Your task to perform on an android device: Open Google Chrome and open the bookmarks view Image 0: 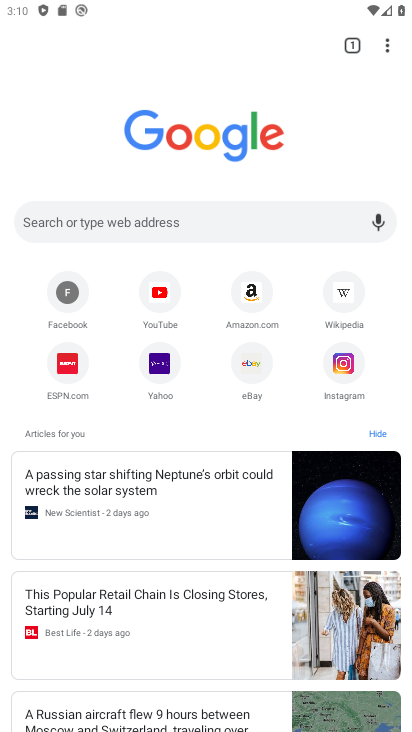
Step 0: press home button
Your task to perform on an android device: Open Google Chrome and open the bookmarks view Image 1: 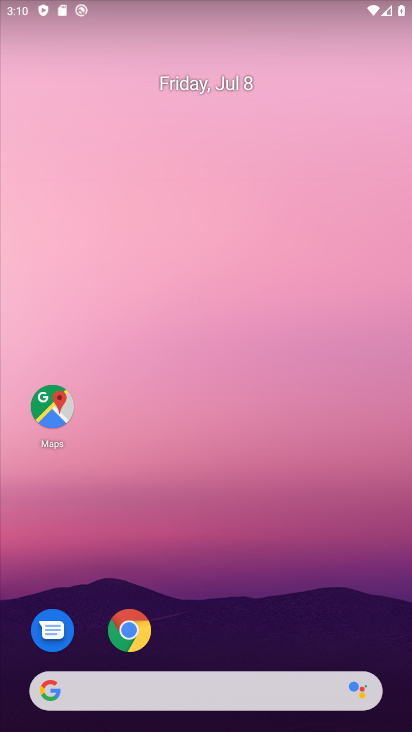
Step 1: click (130, 629)
Your task to perform on an android device: Open Google Chrome and open the bookmarks view Image 2: 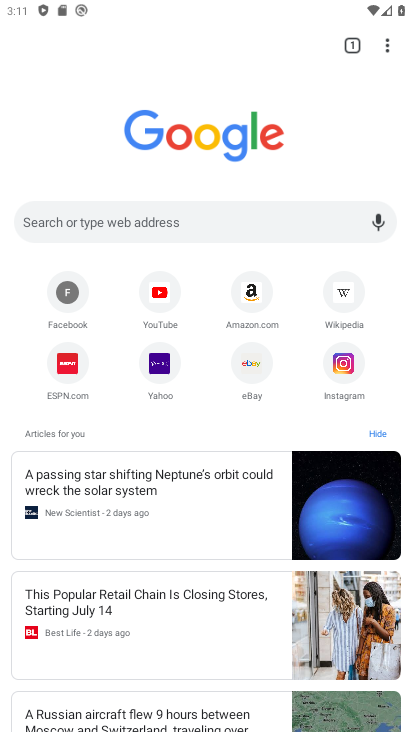
Step 2: click (386, 47)
Your task to perform on an android device: Open Google Chrome and open the bookmarks view Image 3: 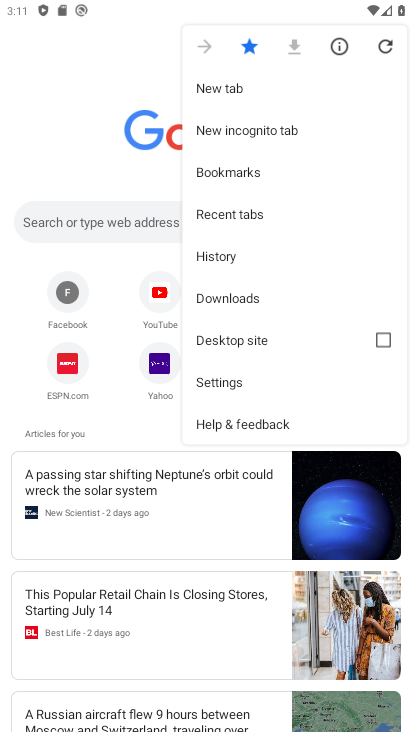
Step 3: click (262, 174)
Your task to perform on an android device: Open Google Chrome and open the bookmarks view Image 4: 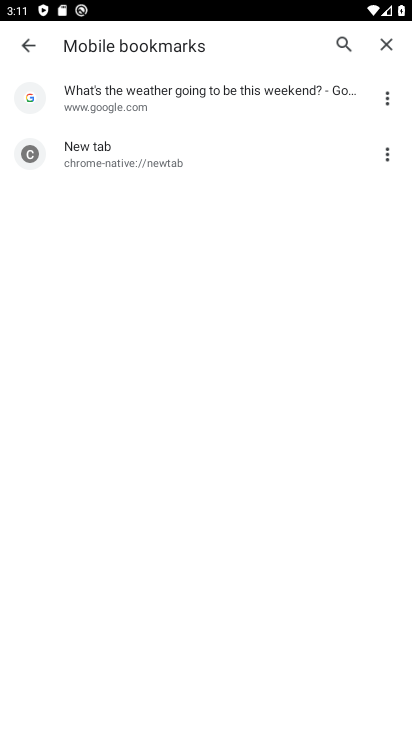
Step 4: task complete